Your task to perform on an android device: turn on the 24-hour format for clock Image 0: 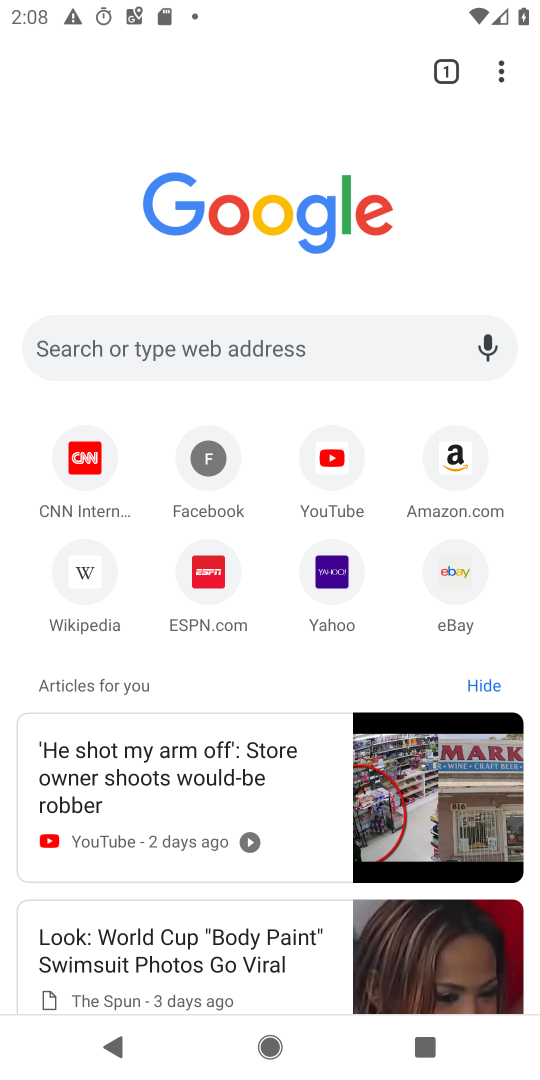
Step 0: press home button
Your task to perform on an android device: turn on the 24-hour format for clock Image 1: 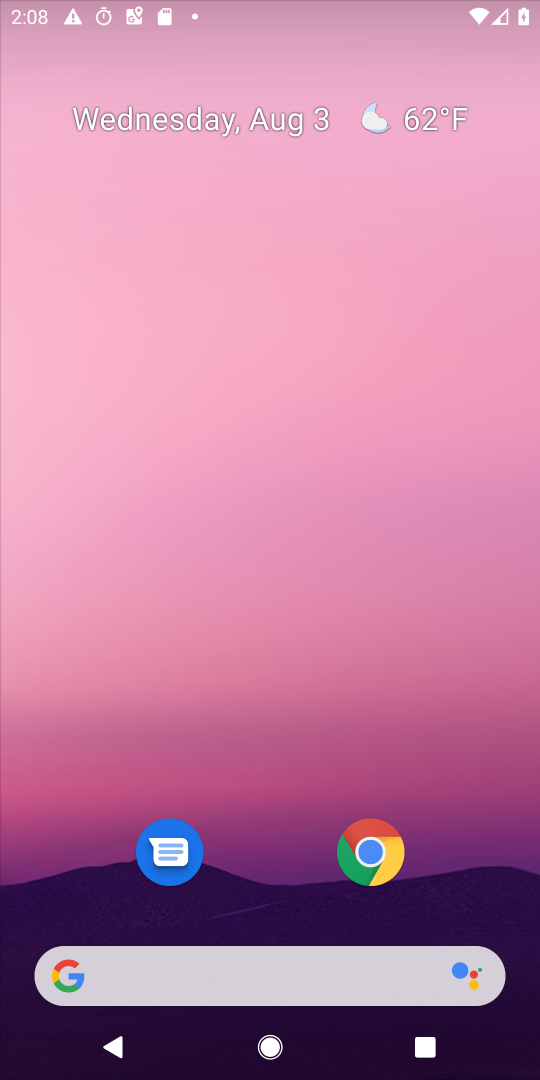
Step 1: drag from (469, 905) to (287, 1)
Your task to perform on an android device: turn on the 24-hour format for clock Image 2: 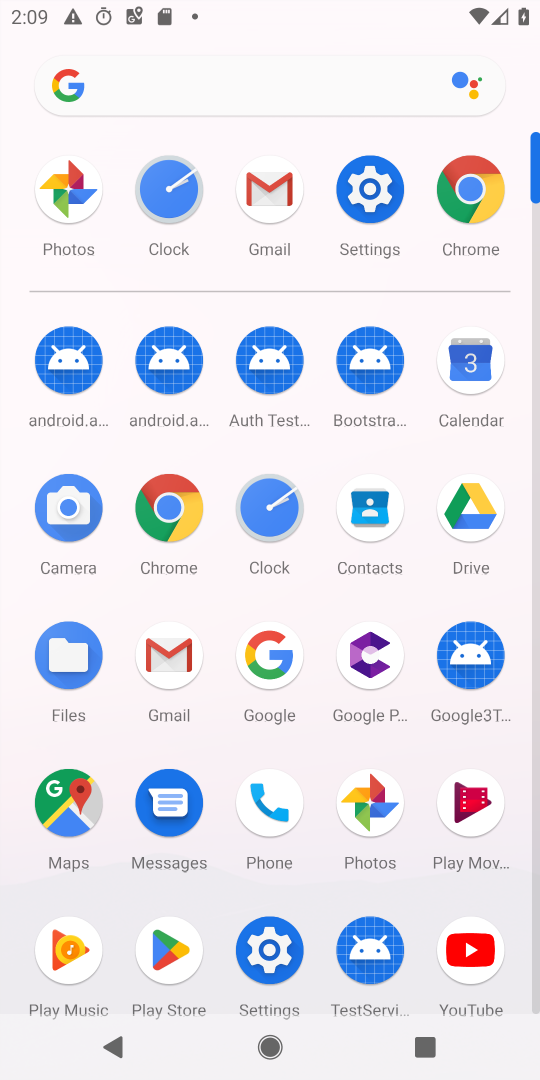
Step 2: click (278, 495)
Your task to perform on an android device: turn on the 24-hour format for clock Image 3: 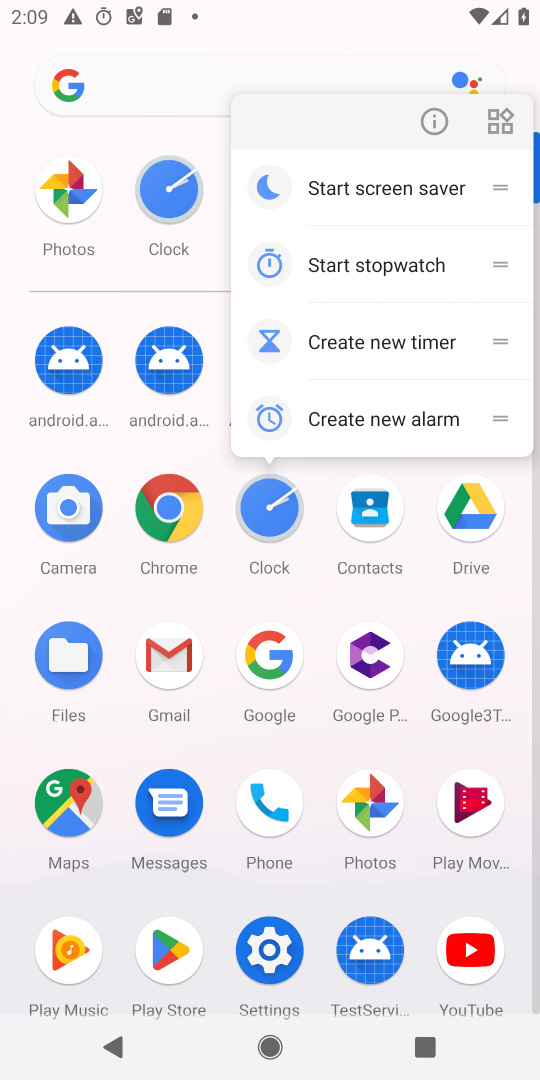
Step 3: click (268, 535)
Your task to perform on an android device: turn on the 24-hour format for clock Image 4: 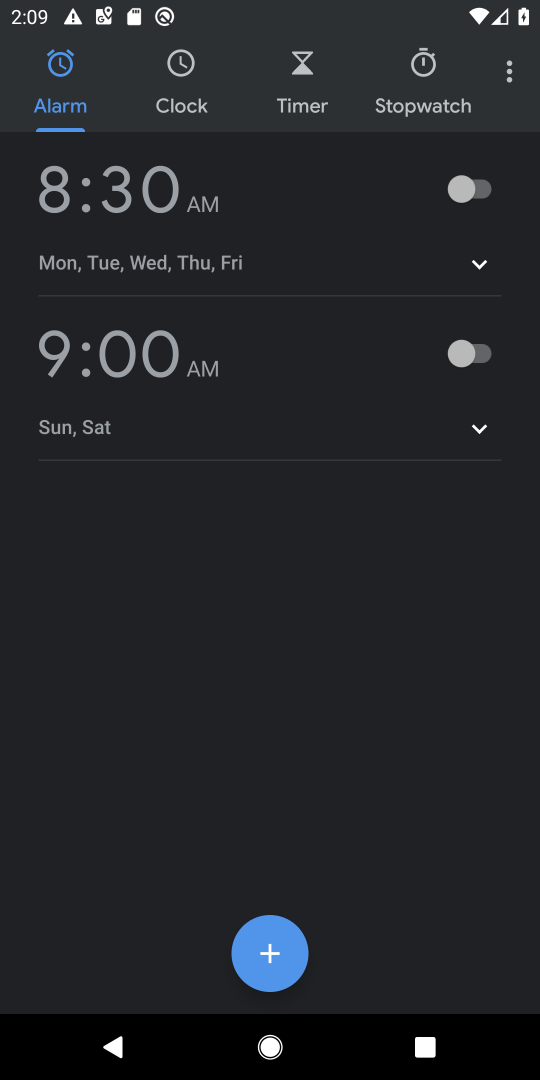
Step 4: click (501, 70)
Your task to perform on an android device: turn on the 24-hour format for clock Image 5: 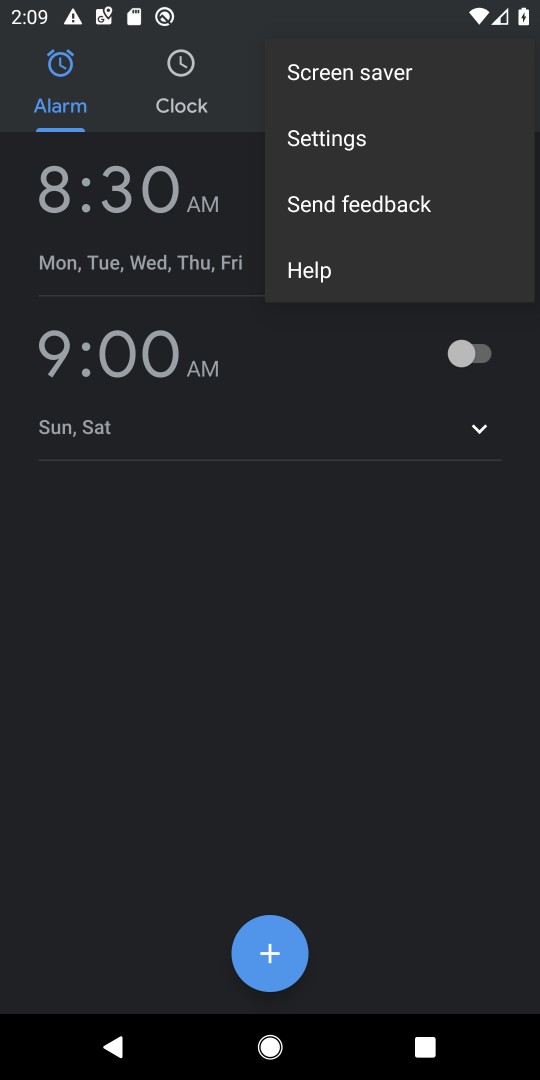
Step 5: click (348, 156)
Your task to perform on an android device: turn on the 24-hour format for clock Image 6: 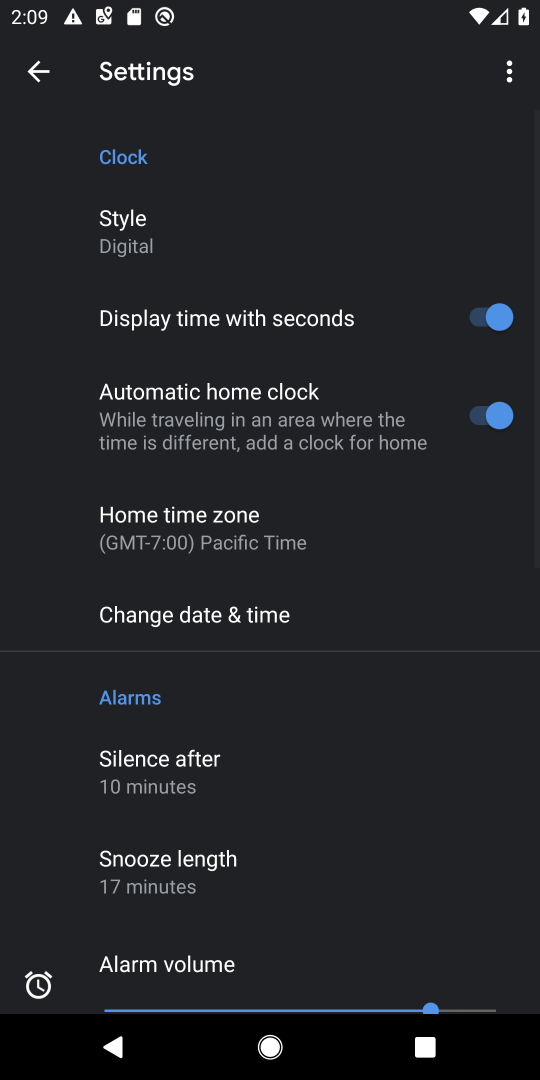
Step 6: click (203, 626)
Your task to perform on an android device: turn on the 24-hour format for clock Image 7: 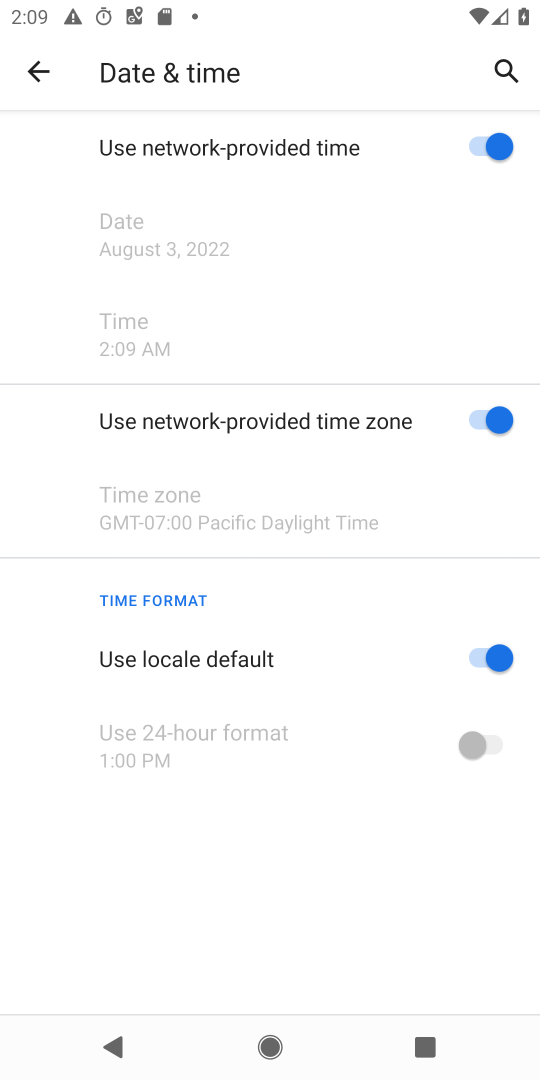
Step 7: task complete